Your task to perform on an android device: set the timer Image 0: 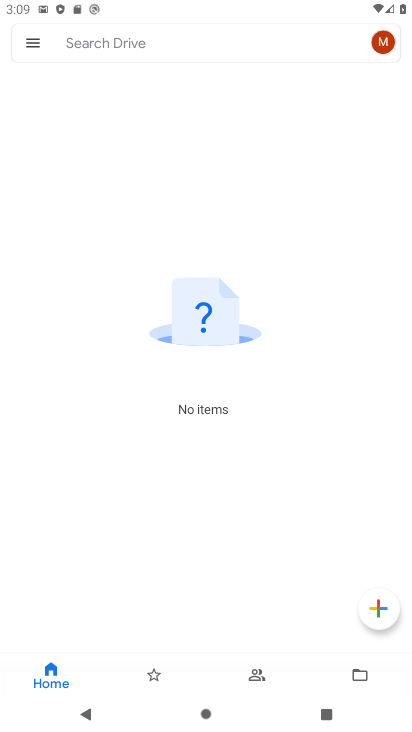
Step 0: press home button
Your task to perform on an android device: set the timer Image 1: 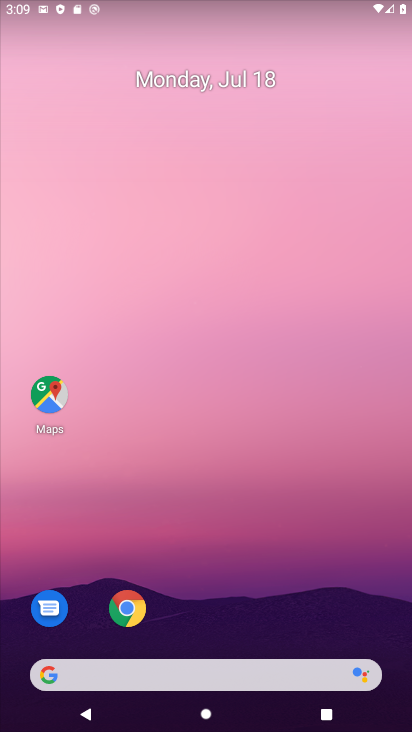
Step 1: drag from (249, 629) to (273, 99)
Your task to perform on an android device: set the timer Image 2: 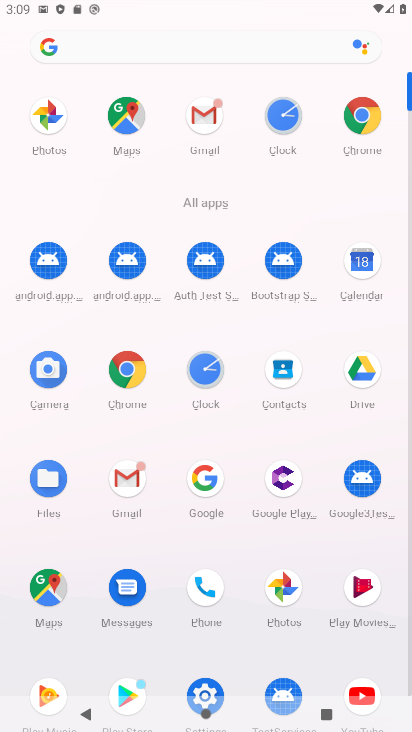
Step 2: click (285, 116)
Your task to perform on an android device: set the timer Image 3: 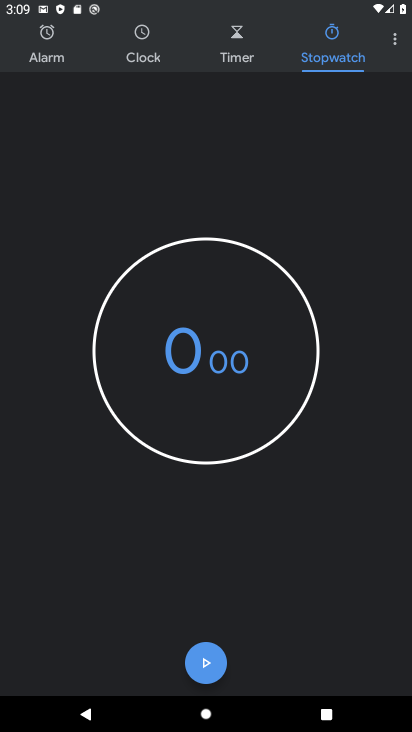
Step 3: click (236, 58)
Your task to perform on an android device: set the timer Image 4: 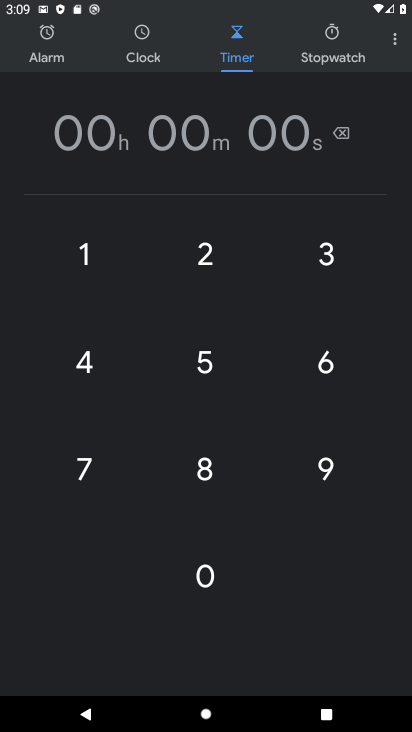
Step 4: click (203, 261)
Your task to perform on an android device: set the timer Image 5: 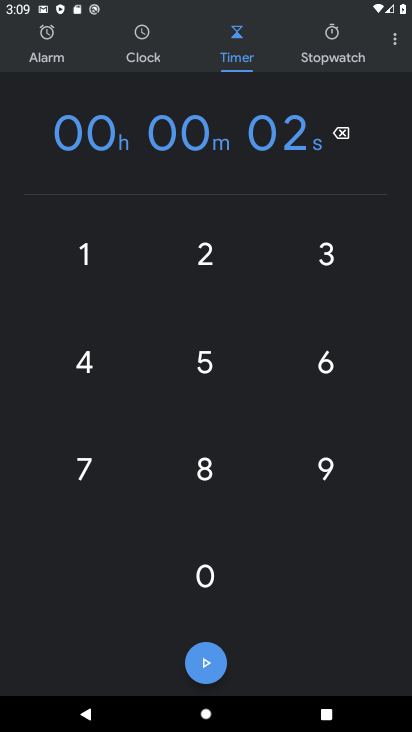
Step 5: click (213, 673)
Your task to perform on an android device: set the timer Image 6: 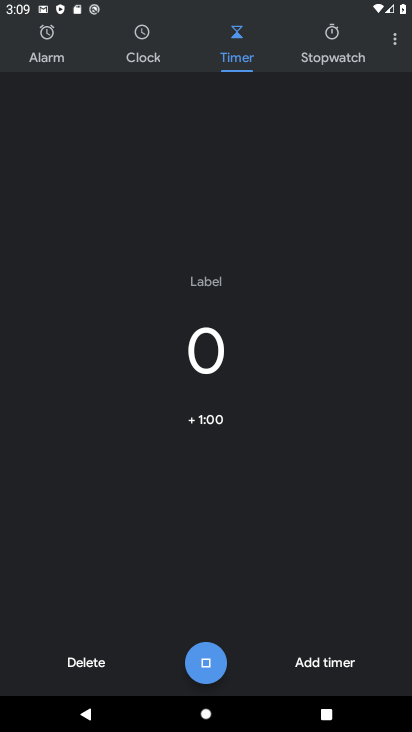
Step 6: task complete